Your task to perform on an android device: turn pop-ups off in chrome Image 0: 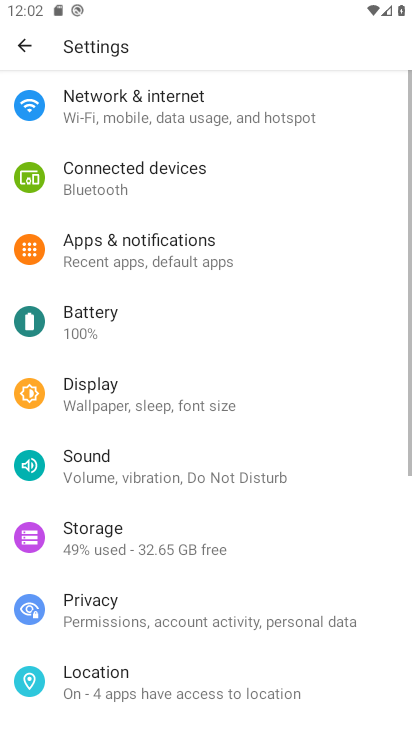
Step 0: press home button
Your task to perform on an android device: turn pop-ups off in chrome Image 1: 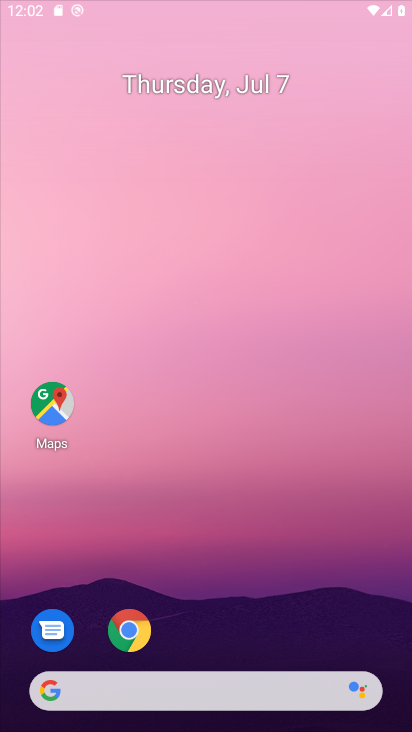
Step 1: drag from (167, 640) to (184, 477)
Your task to perform on an android device: turn pop-ups off in chrome Image 2: 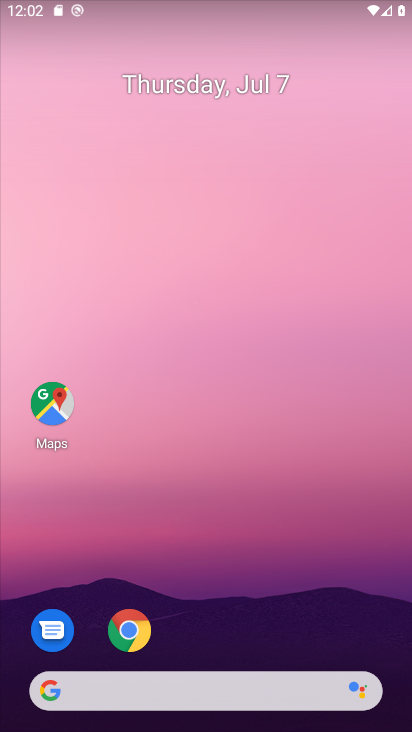
Step 2: drag from (237, 652) to (230, 112)
Your task to perform on an android device: turn pop-ups off in chrome Image 3: 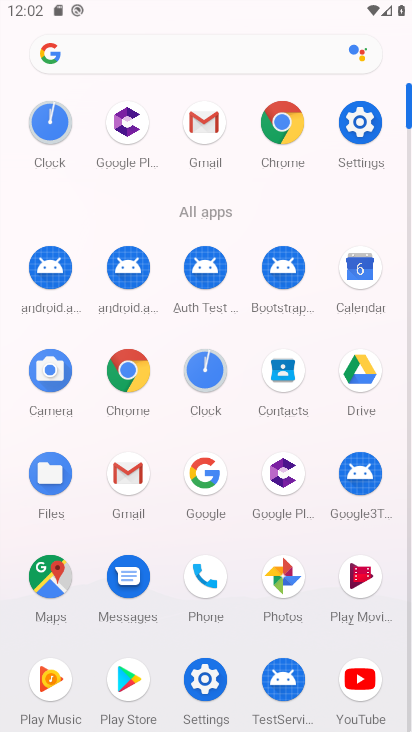
Step 3: click (130, 361)
Your task to perform on an android device: turn pop-ups off in chrome Image 4: 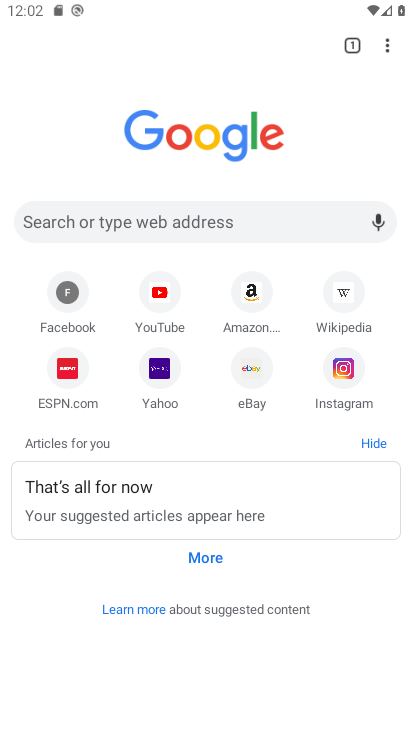
Step 4: click (385, 50)
Your task to perform on an android device: turn pop-ups off in chrome Image 5: 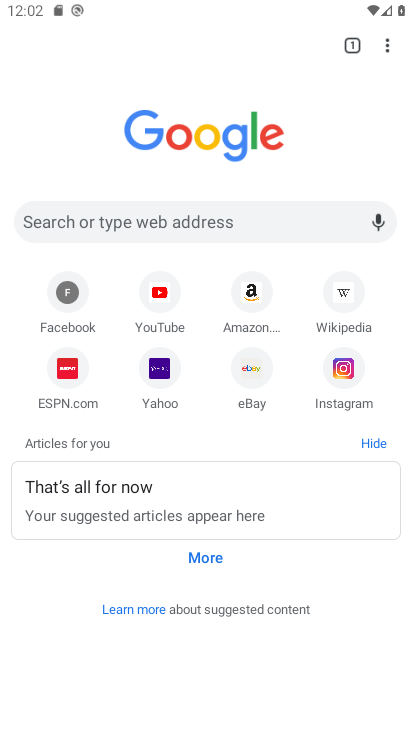
Step 5: click (387, 48)
Your task to perform on an android device: turn pop-ups off in chrome Image 6: 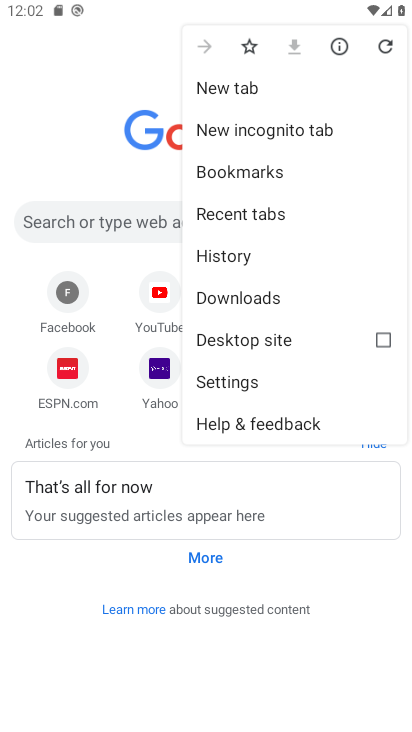
Step 6: click (274, 372)
Your task to perform on an android device: turn pop-ups off in chrome Image 7: 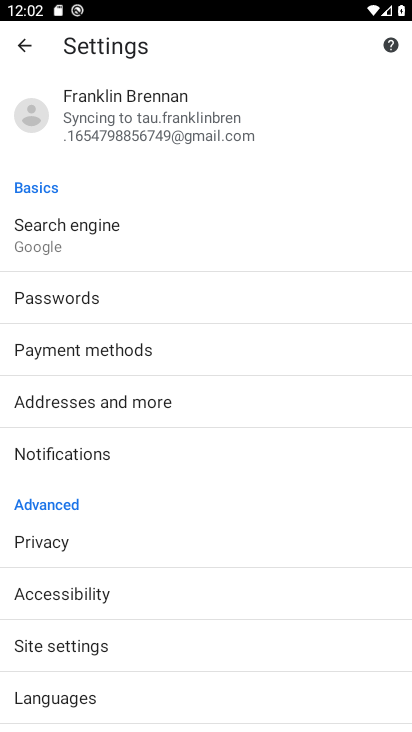
Step 7: click (102, 648)
Your task to perform on an android device: turn pop-ups off in chrome Image 8: 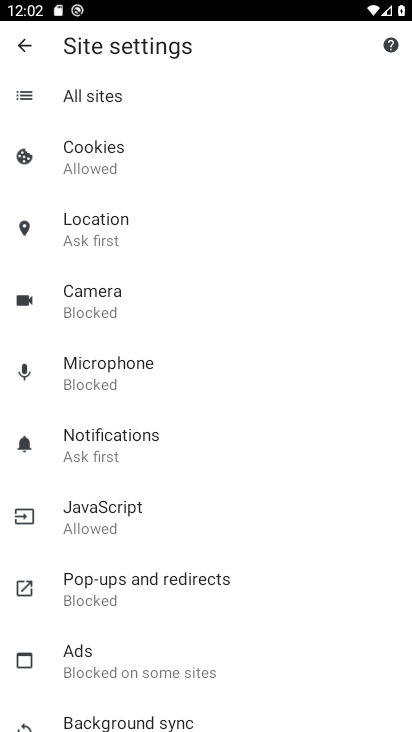
Step 8: click (130, 582)
Your task to perform on an android device: turn pop-ups off in chrome Image 9: 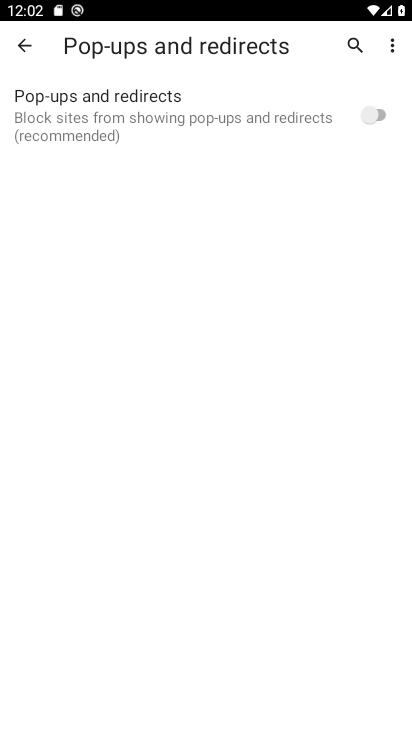
Step 9: task complete